Your task to perform on an android device: Open accessibility settings Image 0: 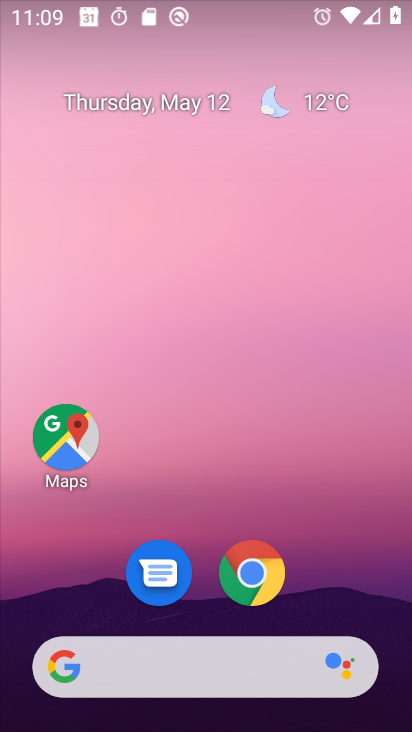
Step 0: drag from (407, 365) to (407, 187)
Your task to perform on an android device: Open accessibility settings Image 1: 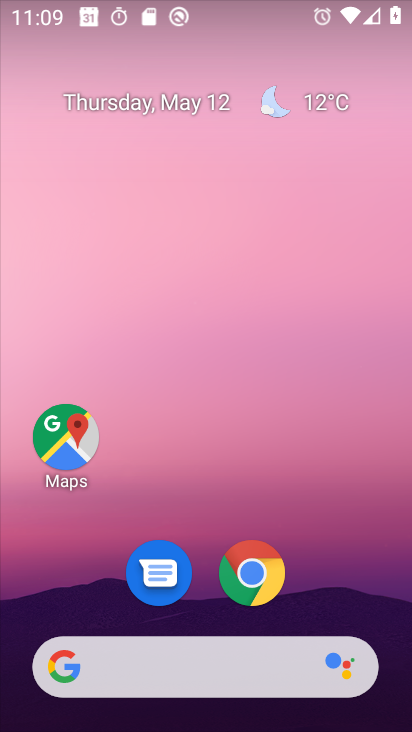
Step 1: drag from (398, 623) to (396, 275)
Your task to perform on an android device: Open accessibility settings Image 2: 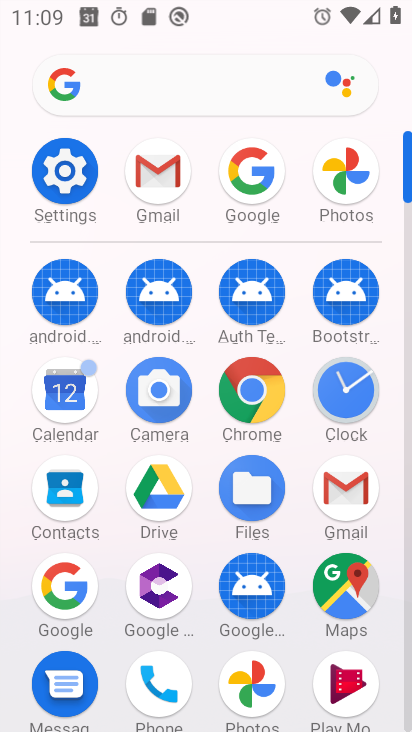
Step 2: click (75, 177)
Your task to perform on an android device: Open accessibility settings Image 3: 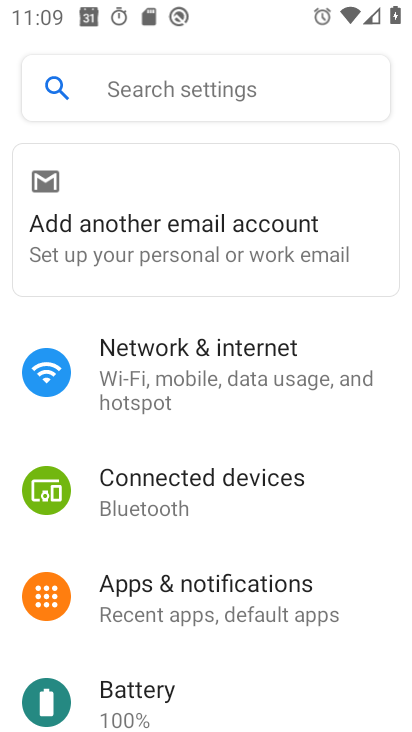
Step 3: drag from (288, 638) to (318, 293)
Your task to perform on an android device: Open accessibility settings Image 4: 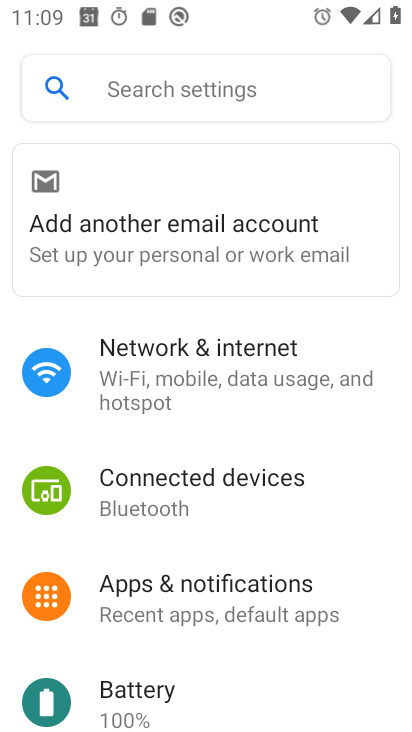
Step 4: drag from (323, 697) to (306, 552)
Your task to perform on an android device: Open accessibility settings Image 5: 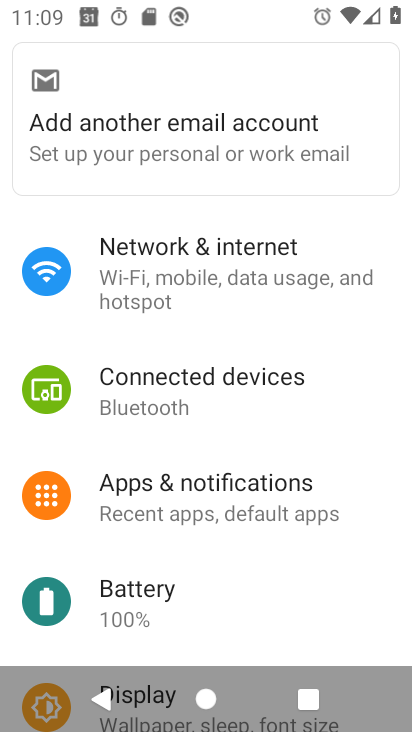
Step 5: drag from (310, 630) to (306, 378)
Your task to perform on an android device: Open accessibility settings Image 6: 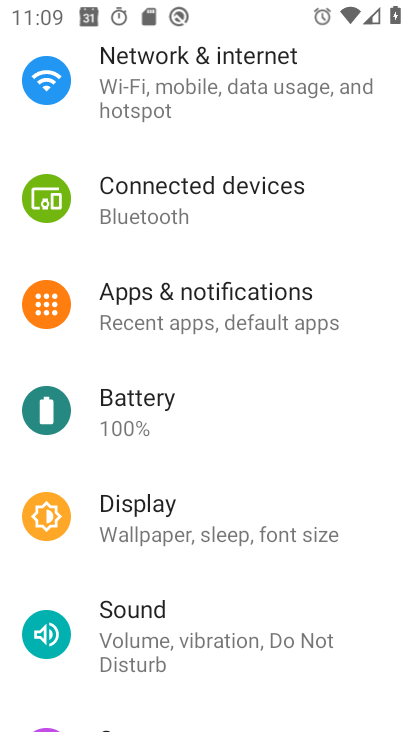
Step 6: drag from (360, 661) to (313, 326)
Your task to perform on an android device: Open accessibility settings Image 7: 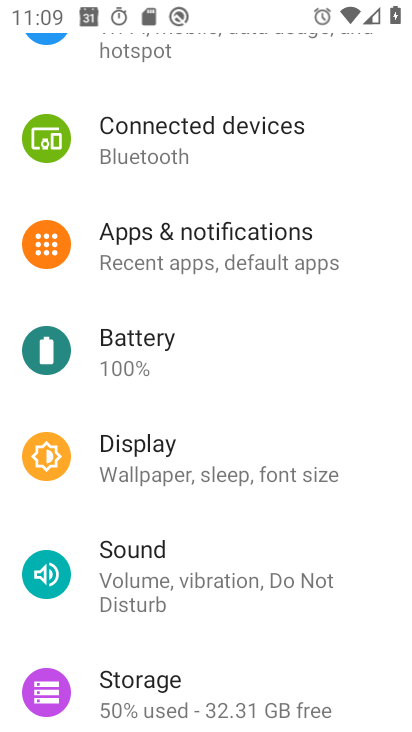
Step 7: drag from (366, 671) to (349, 325)
Your task to perform on an android device: Open accessibility settings Image 8: 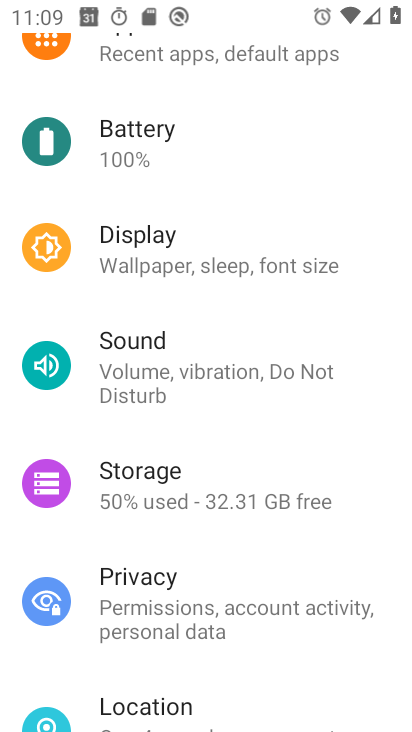
Step 8: drag from (324, 691) to (280, 282)
Your task to perform on an android device: Open accessibility settings Image 9: 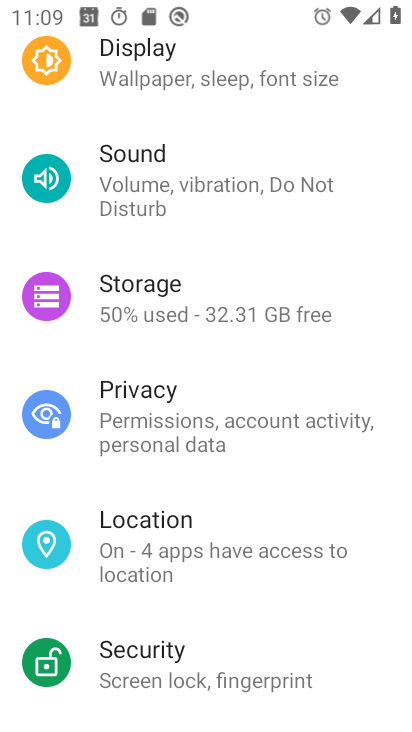
Step 9: drag from (366, 676) to (342, 234)
Your task to perform on an android device: Open accessibility settings Image 10: 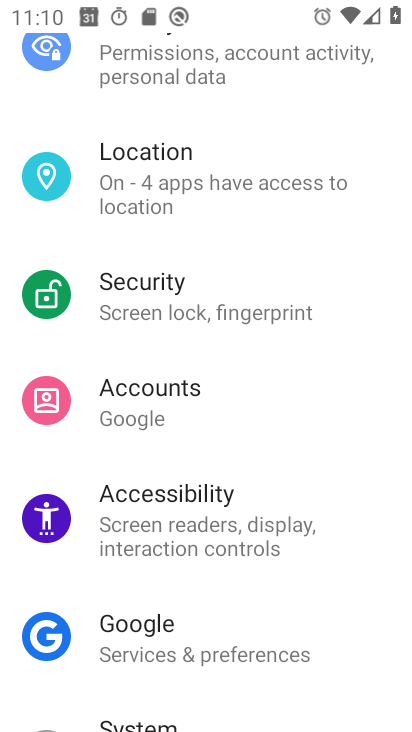
Step 10: drag from (354, 693) to (352, 397)
Your task to perform on an android device: Open accessibility settings Image 11: 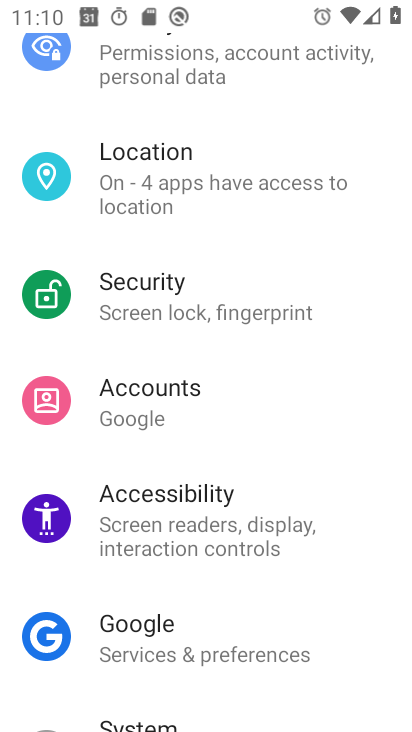
Step 11: click (147, 512)
Your task to perform on an android device: Open accessibility settings Image 12: 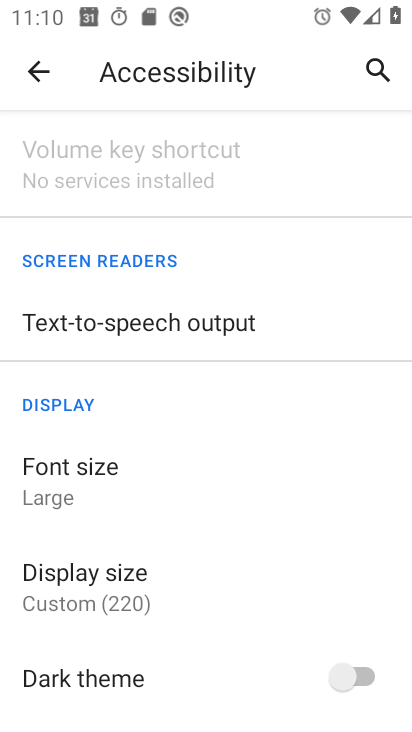
Step 12: task complete